Your task to perform on an android device: turn notification dots off Image 0: 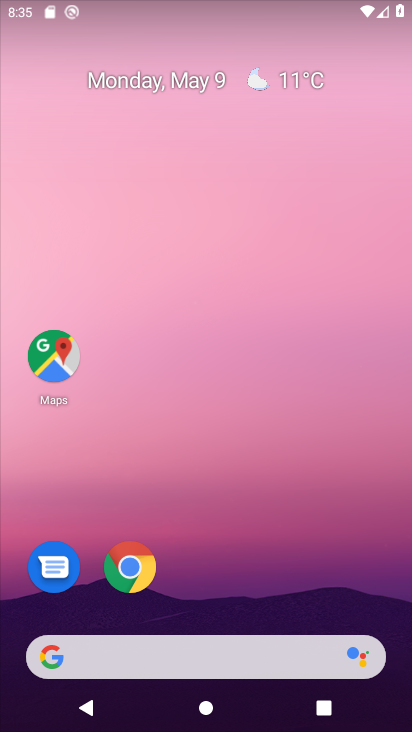
Step 0: drag from (296, 518) to (274, 28)
Your task to perform on an android device: turn notification dots off Image 1: 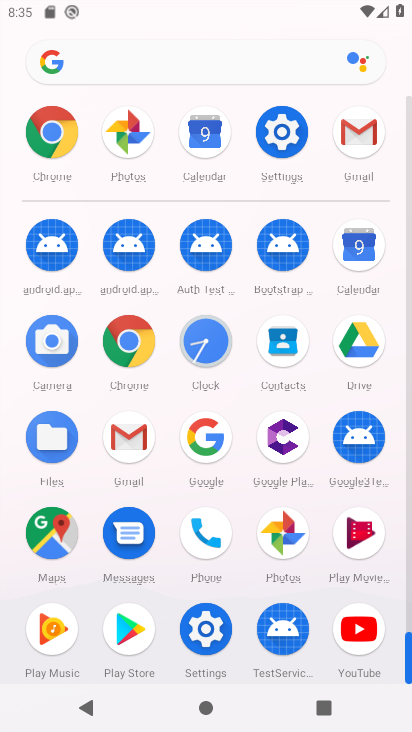
Step 1: click (275, 133)
Your task to perform on an android device: turn notification dots off Image 2: 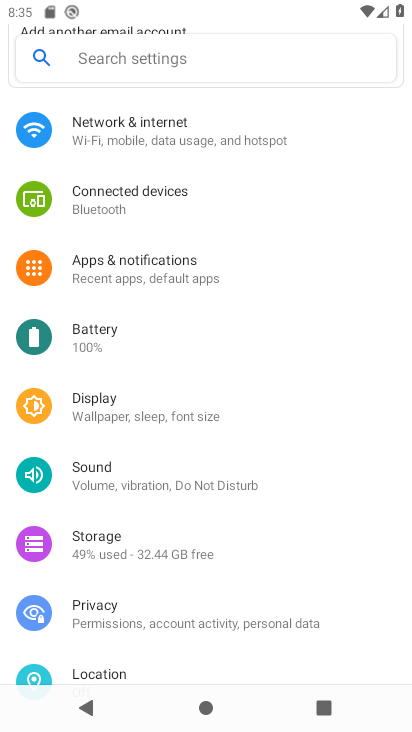
Step 2: click (214, 266)
Your task to perform on an android device: turn notification dots off Image 3: 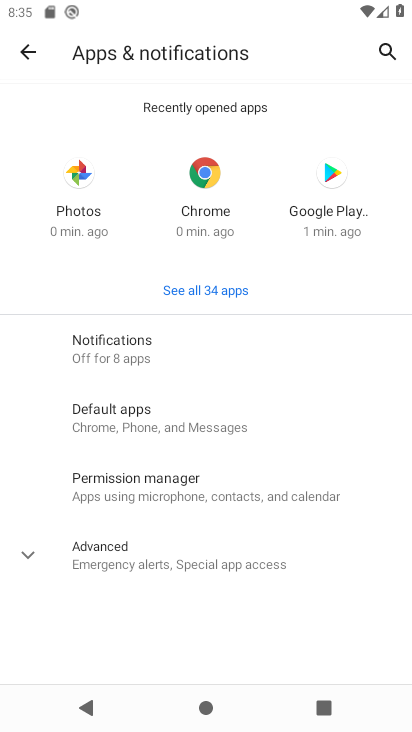
Step 3: click (25, 553)
Your task to perform on an android device: turn notification dots off Image 4: 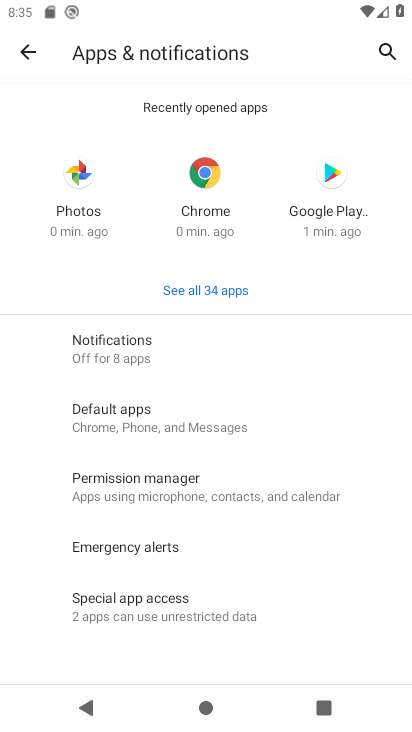
Step 4: drag from (273, 554) to (304, 235)
Your task to perform on an android device: turn notification dots off Image 5: 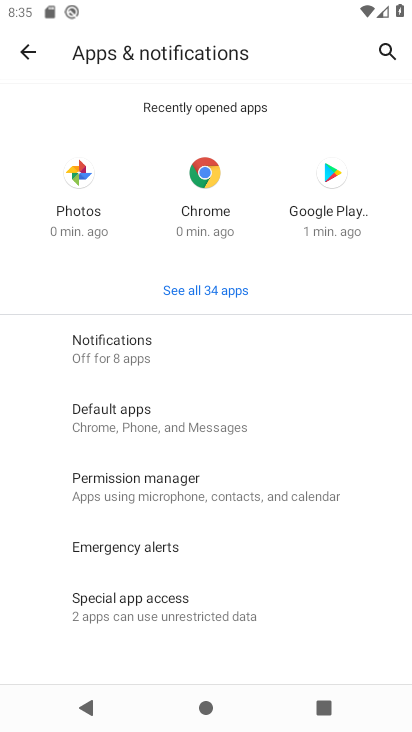
Step 5: click (130, 350)
Your task to perform on an android device: turn notification dots off Image 6: 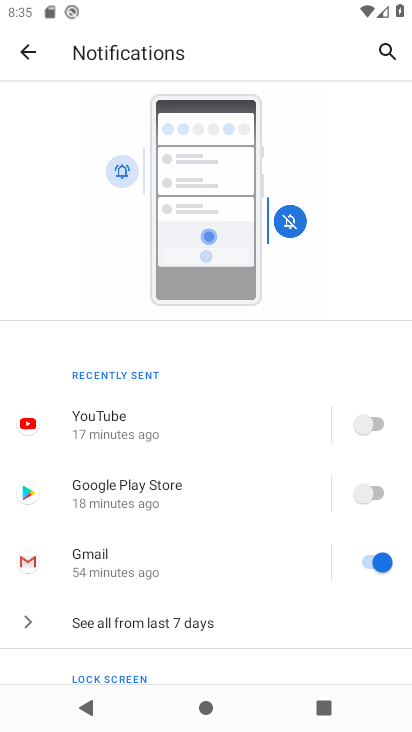
Step 6: drag from (183, 550) to (217, 146)
Your task to perform on an android device: turn notification dots off Image 7: 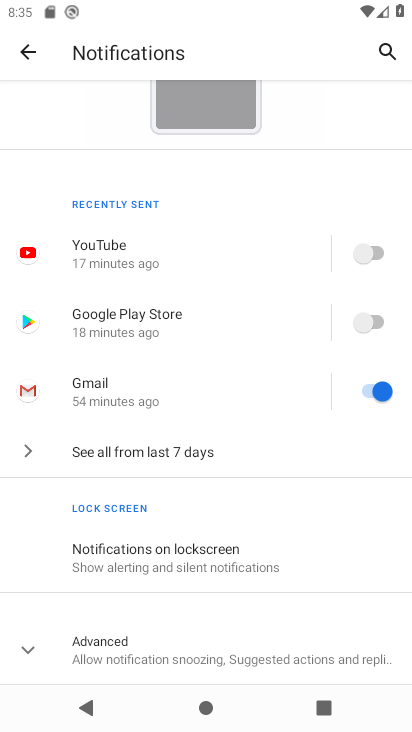
Step 7: click (30, 643)
Your task to perform on an android device: turn notification dots off Image 8: 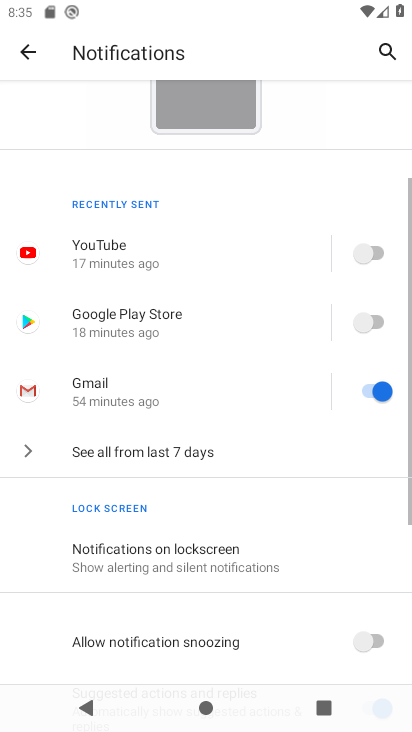
Step 8: drag from (201, 536) to (220, 191)
Your task to perform on an android device: turn notification dots off Image 9: 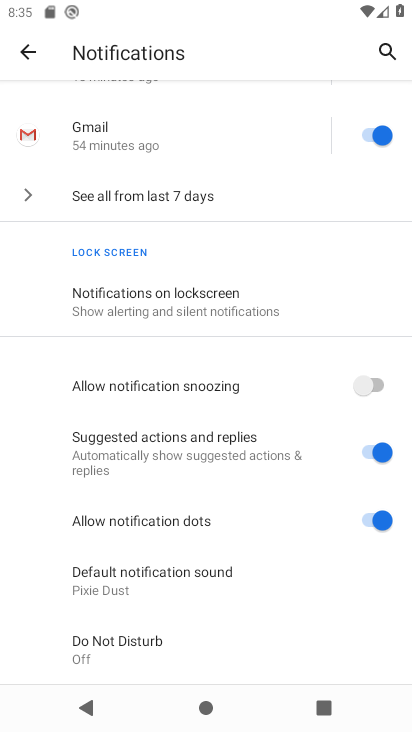
Step 9: click (371, 515)
Your task to perform on an android device: turn notification dots off Image 10: 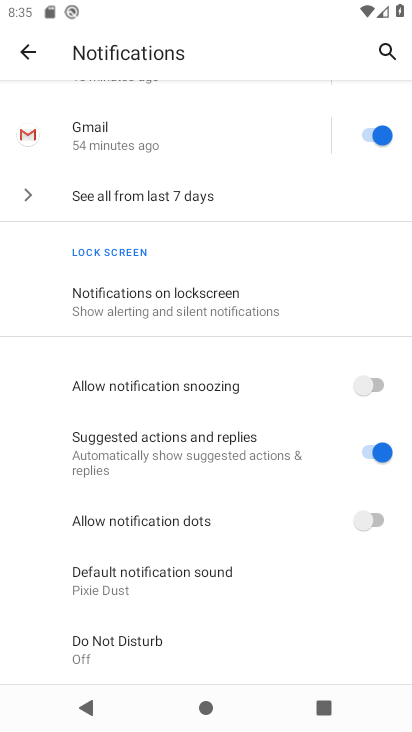
Step 10: task complete